Your task to perform on an android device: change notification settings in the gmail app Image 0: 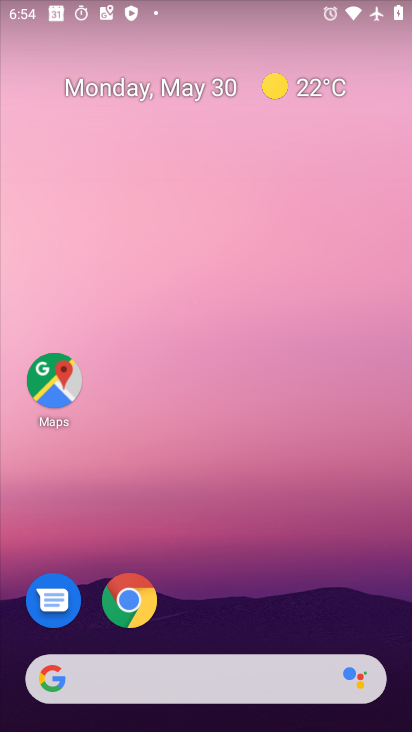
Step 0: click (252, 622)
Your task to perform on an android device: change notification settings in the gmail app Image 1: 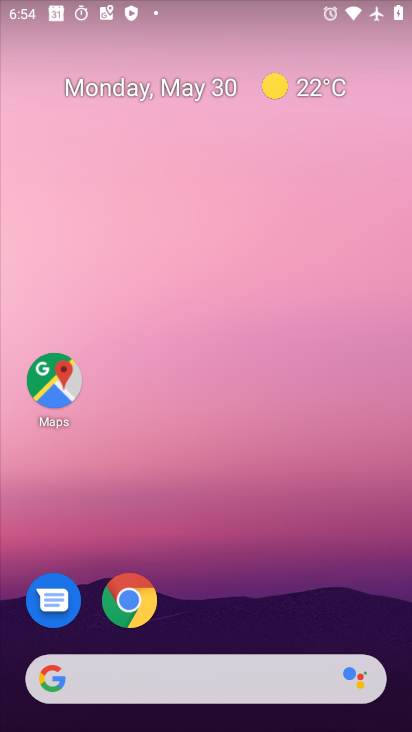
Step 1: drag from (262, 594) to (270, 105)
Your task to perform on an android device: change notification settings in the gmail app Image 2: 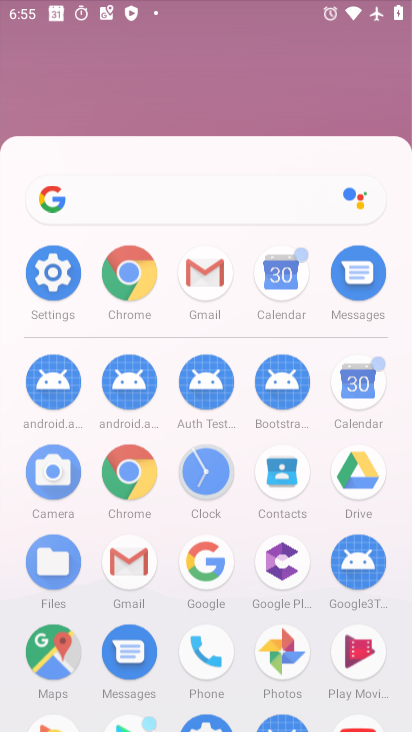
Step 2: click (269, 105)
Your task to perform on an android device: change notification settings in the gmail app Image 3: 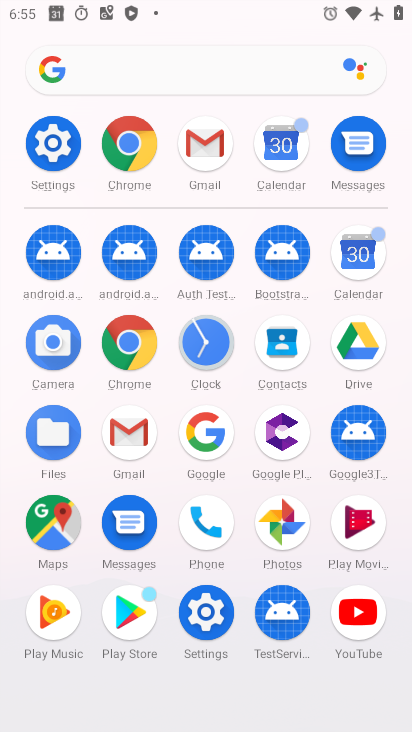
Step 3: click (208, 162)
Your task to perform on an android device: change notification settings in the gmail app Image 4: 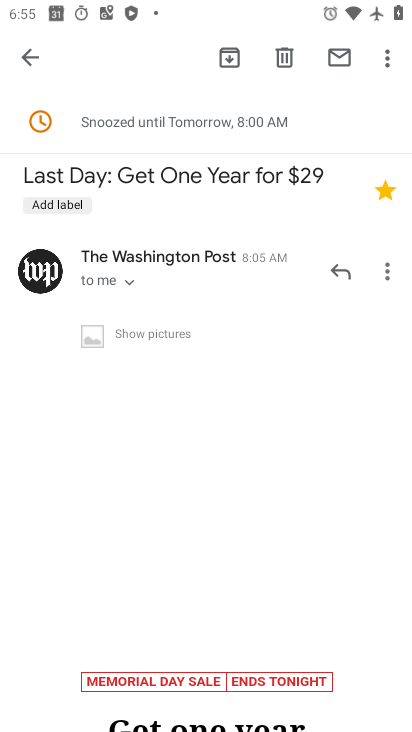
Step 4: click (33, 60)
Your task to perform on an android device: change notification settings in the gmail app Image 5: 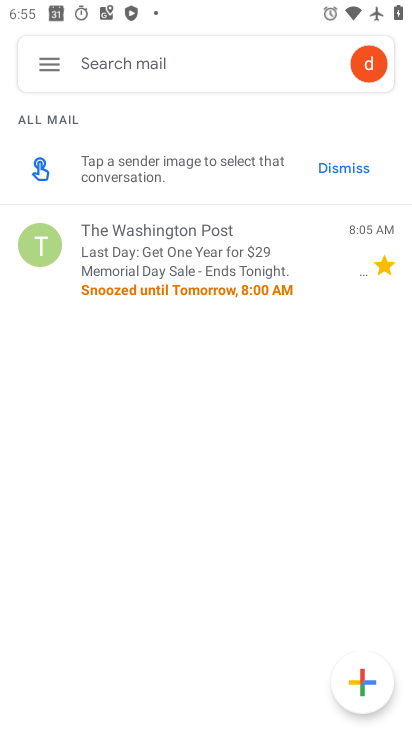
Step 5: click (40, 56)
Your task to perform on an android device: change notification settings in the gmail app Image 6: 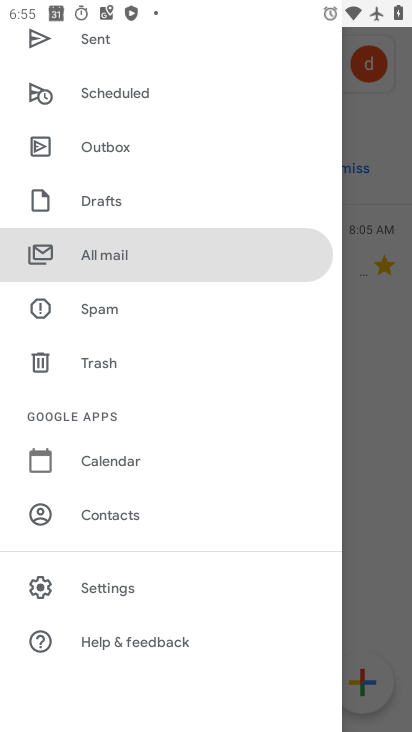
Step 6: click (127, 584)
Your task to perform on an android device: change notification settings in the gmail app Image 7: 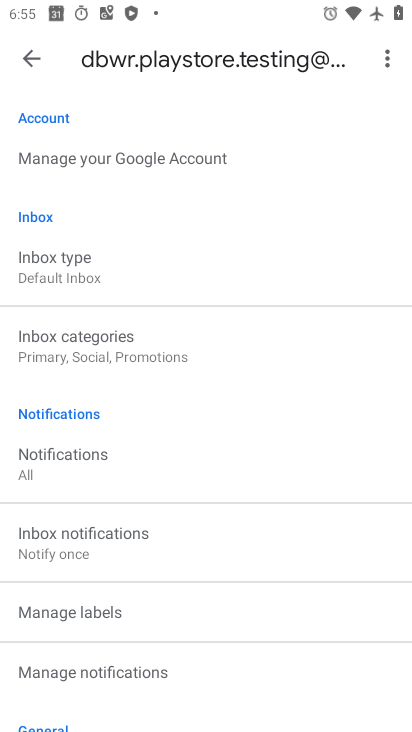
Step 7: click (32, 57)
Your task to perform on an android device: change notification settings in the gmail app Image 8: 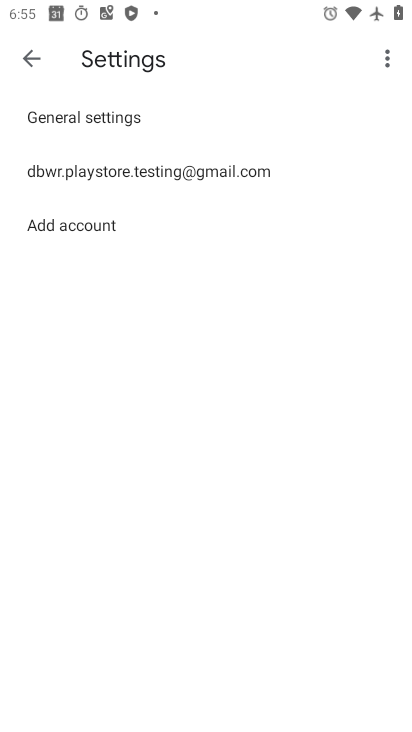
Step 8: click (87, 121)
Your task to perform on an android device: change notification settings in the gmail app Image 9: 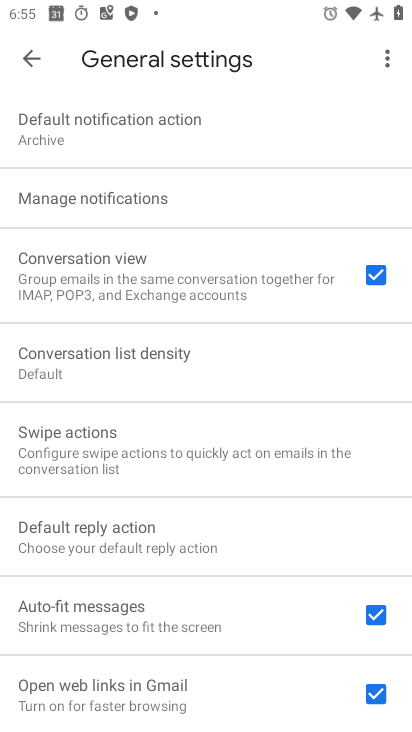
Step 9: click (77, 198)
Your task to perform on an android device: change notification settings in the gmail app Image 10: 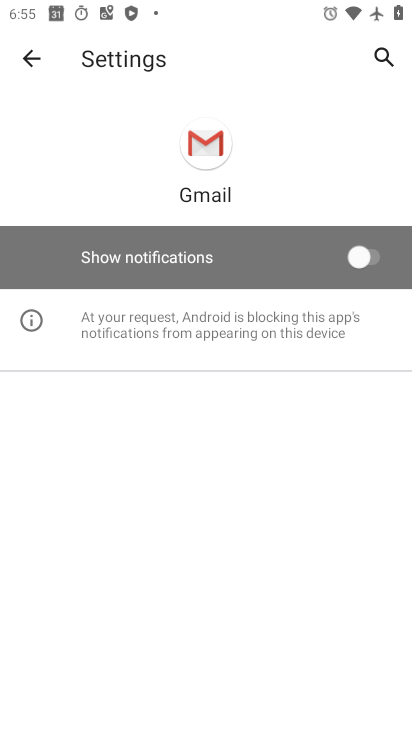
Step 10: click (352, 253)
Your task to perform on an android device: change notification settings in the gmail app Image 11: 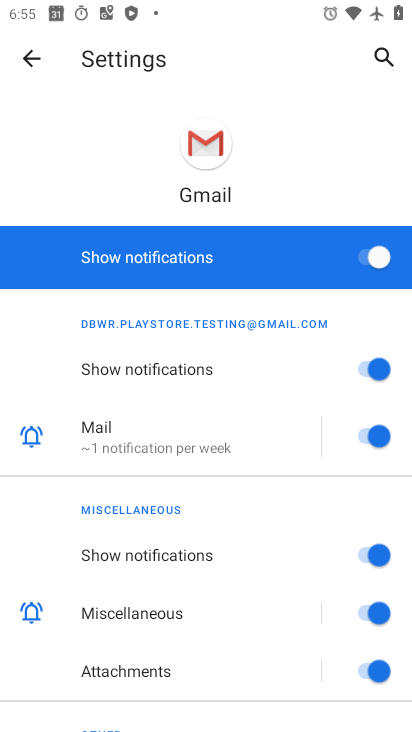
Step 11: click (382, 260)
Your task to perform on an android device: change notification settings in the gmail app Image 12: 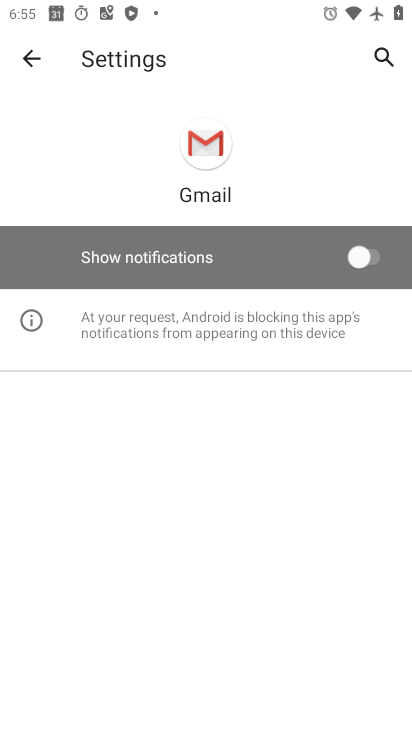
Step 12: task complete